Your task to perform on an android device: Go to battery settings Image 0: 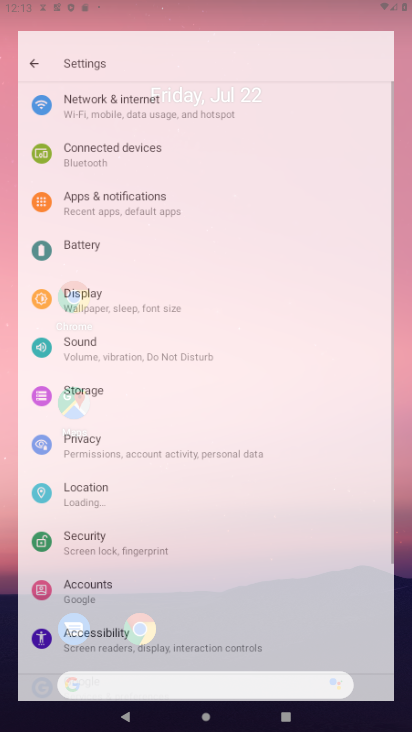
Step 0: drag from (206, 711) to (179, 225)
Your task to perform on an android device: Go to battery settings Image 1: 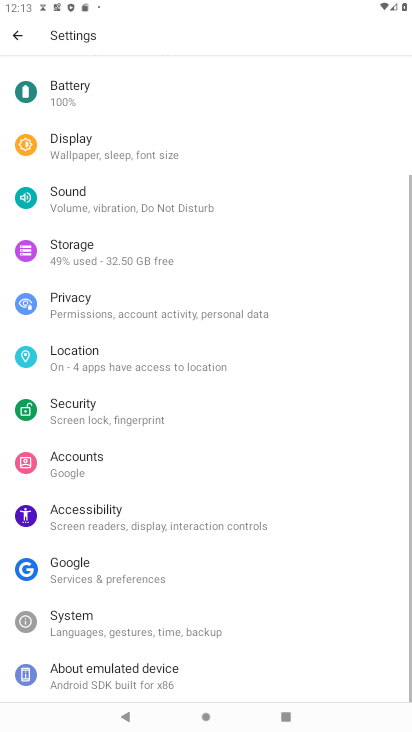
Step 1: click (62, 92)
Your task to perform on an android device: Go to battery settings Image 2: 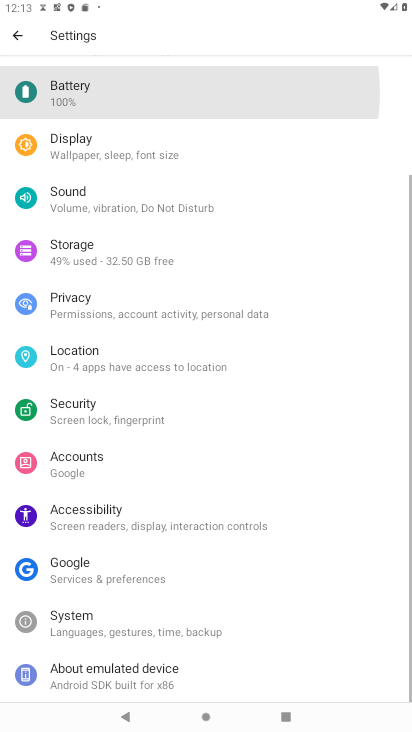
Step 2: click (66, 89)
Your task to perform on an android device: Go to battery settings Image 3: 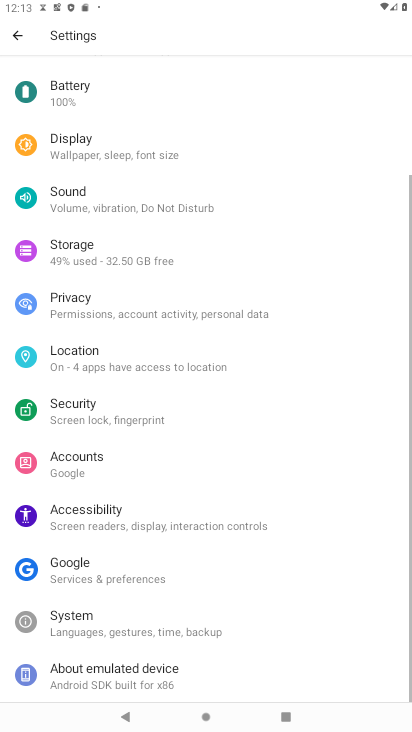
Step 3: click (70, 88)
Your task to perform on an android device: Go to battery settings Image 4: 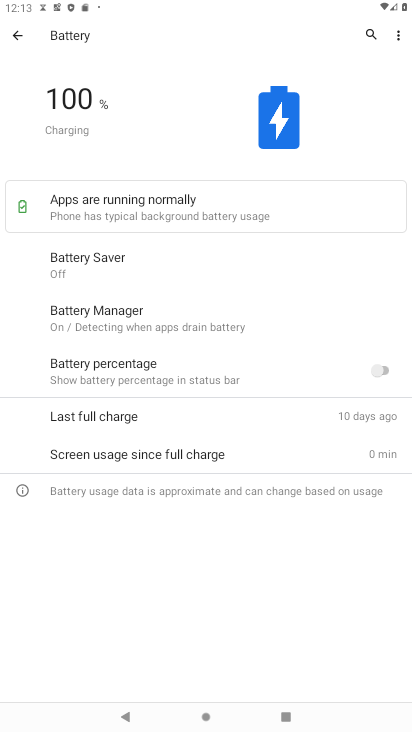
Step 4: task complete